Your task to perform on an android device: check battery use Image 0: 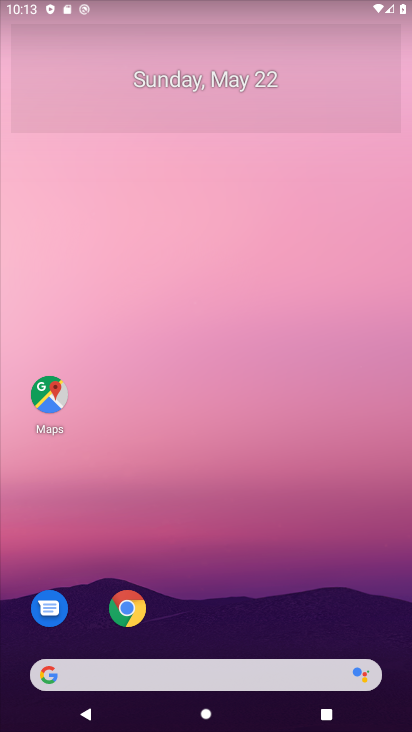
Step 0: drag from (315, 601) to (375, 136)
Your task to perform on an android device: check battery use Image 1: 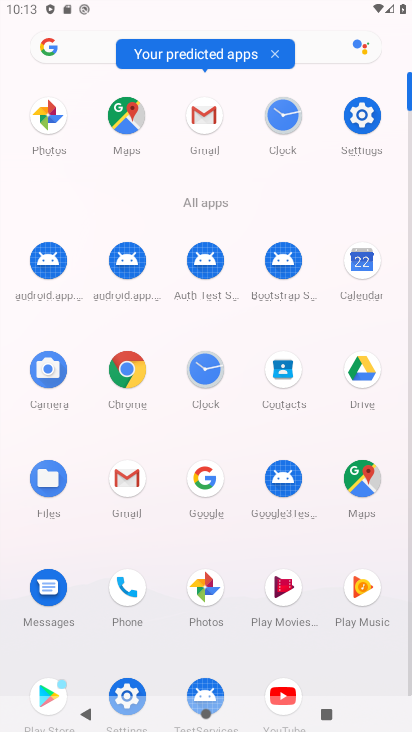
Step 1: drag from (365, 107) to (81, 156)
Your task to perform on an android device: check battery use Image 2: 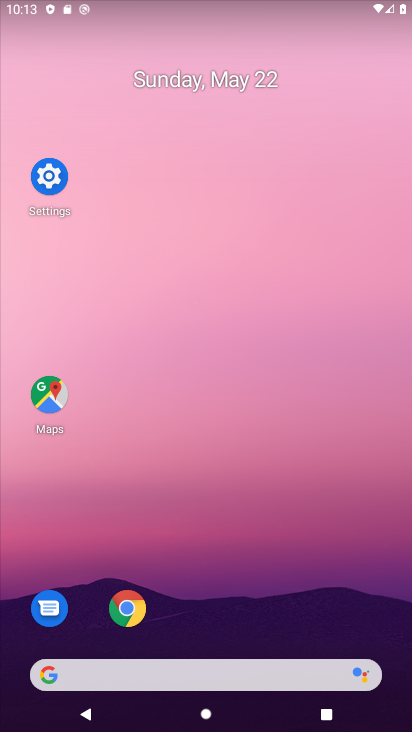
Step 2: click (52, 179)
Your task to perform on an android device: check battery use Image 3: 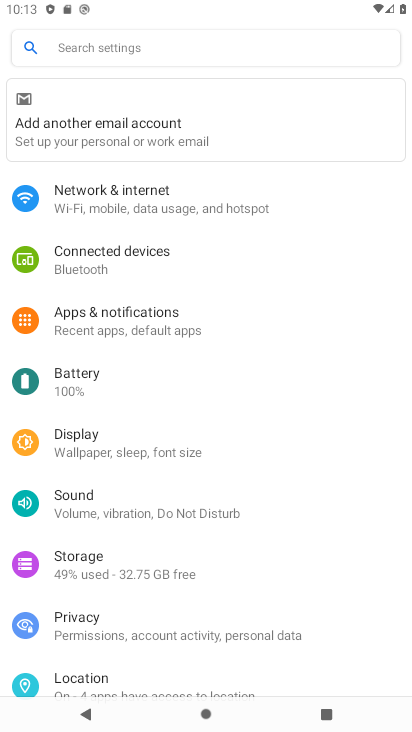
Step 3: click (115, 383)
Your task to perform on an android device: check battery use Image 4: 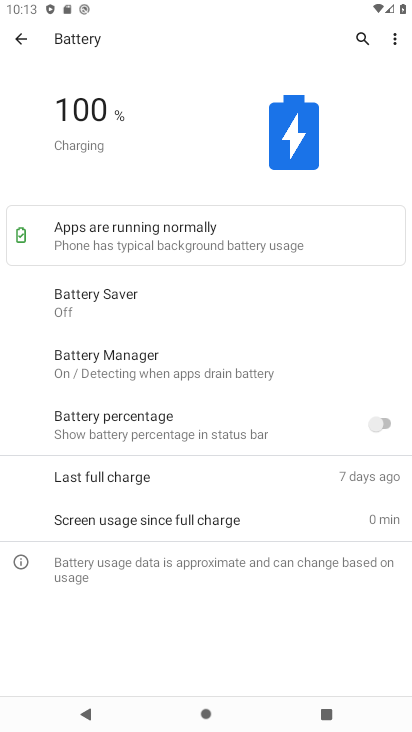
Step 4: click (398, 48)
Your task to perform on an android device: check battery use Image 5: 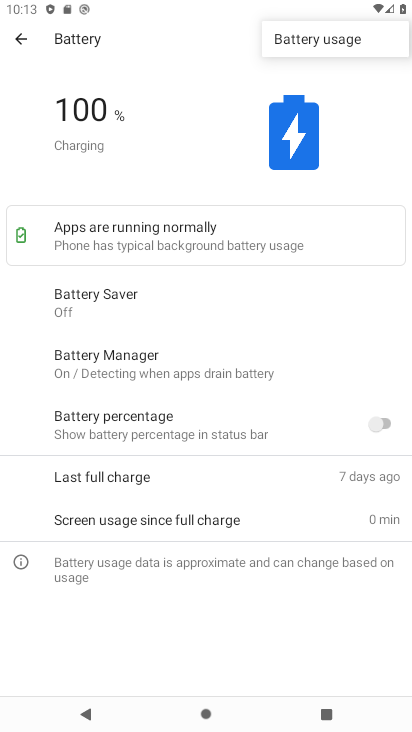
Step 5: click (346, 54)
Your task to perform on an android device: check battery use Image 6: 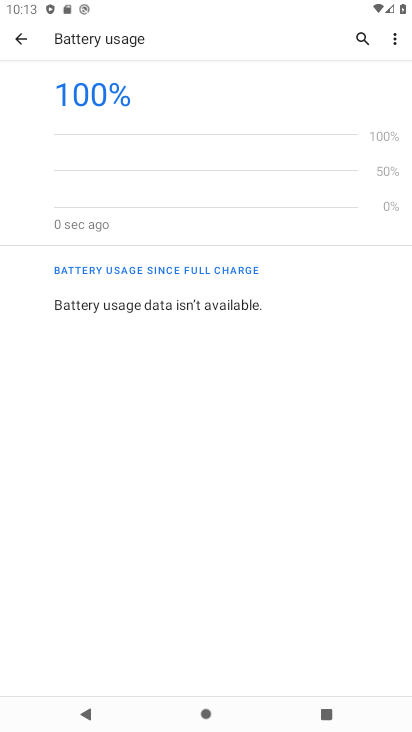
Step 6: task complete